Your task to perform on an android device: turn on javascript in the chrome app Image 0: 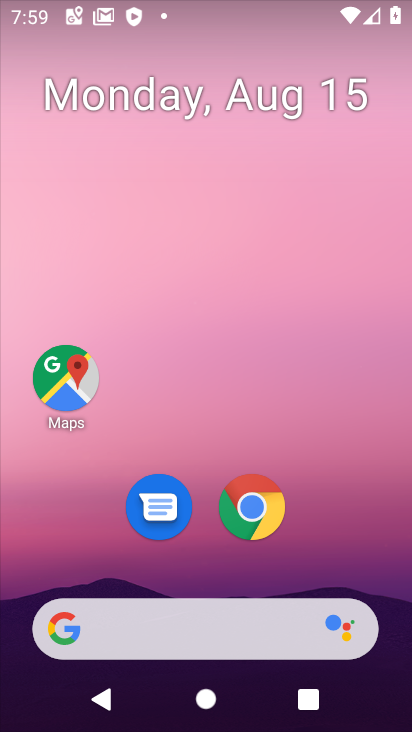
Step 0: click (273, 493)
Your task to perform on an android device: turn on javascript in the chrome app Image 1: 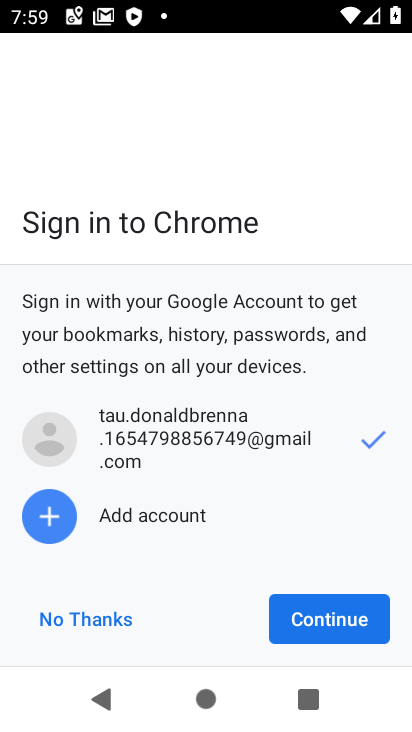
Step 1: click (306, 640)
Your task to perform on an android device: turn on javascript in the chrome app Image 2: 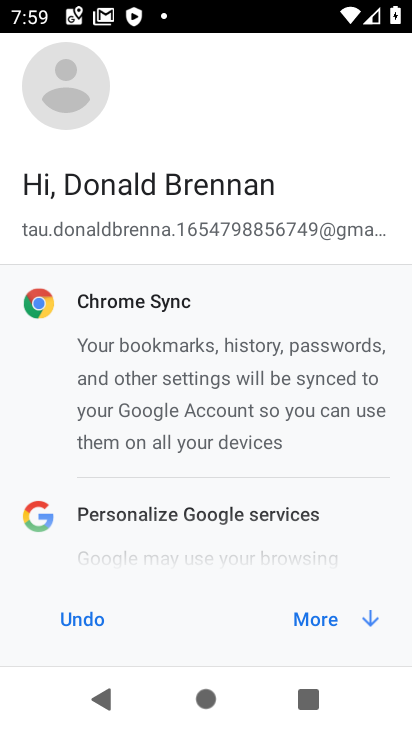
Step 2: click (327, 604)
Your task to perform on an android device: turn on javascript in the chrome app Image 3: 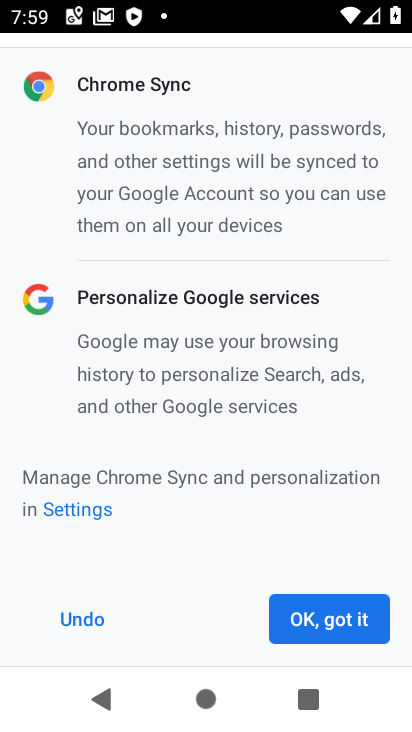
Step 3: click (308, 613)
Your task to perform on an android device: turn on javascript in the chrome app Image 4: 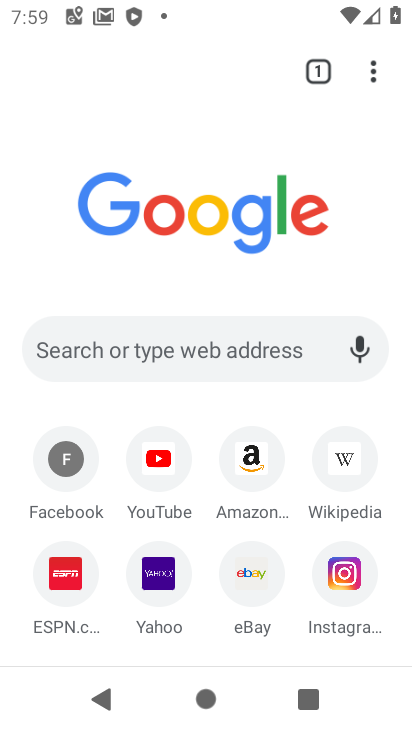
Step 4: click (373, 85)
Your task to perform on an android device: turn on javascript in the chrome app Image 5: 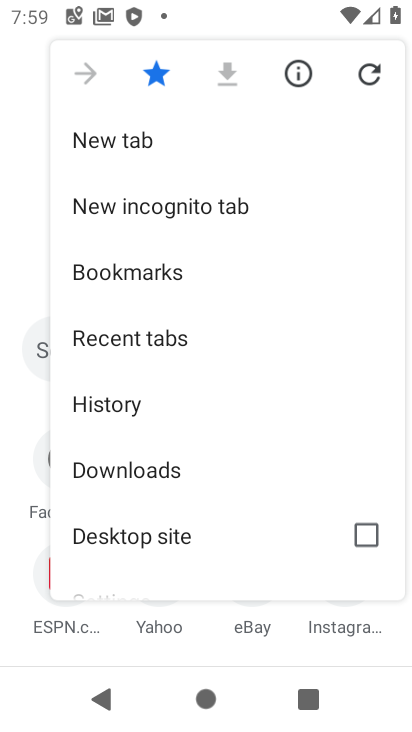
Step 5: drag from (233, 497) to (238, 185)
Your task to perform on an android device: turn on javascript in the chrome app Image 6: 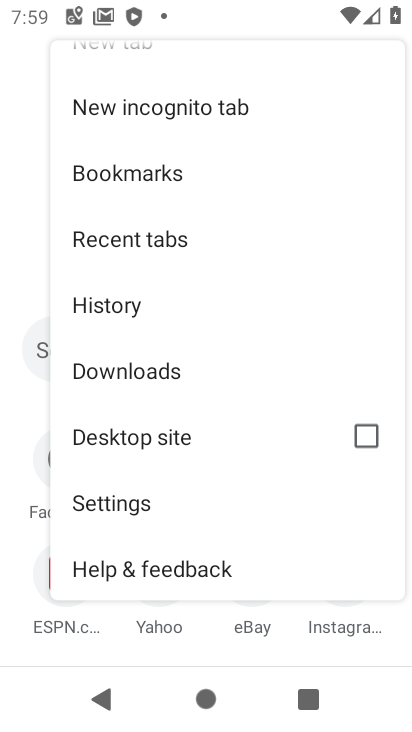
Step 6: click (209, 488)
Your task to perform on an android device: turn on javascript in the chrome app Image 7: 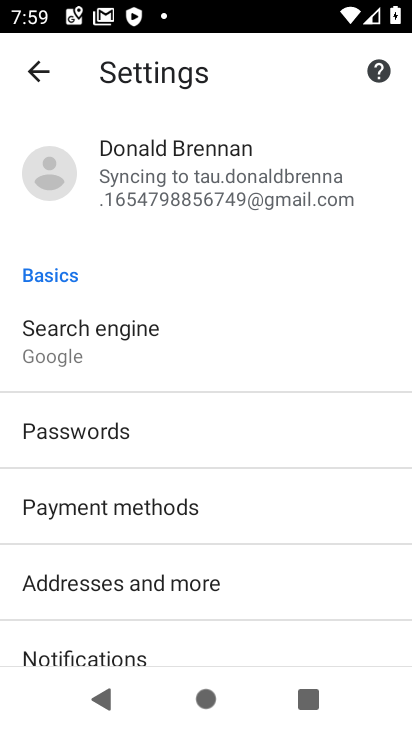
Step 7: drag from (209, 488) to (240, 40)
Your task to perform on an android device: turn on javascript in the chrome app Image 8: 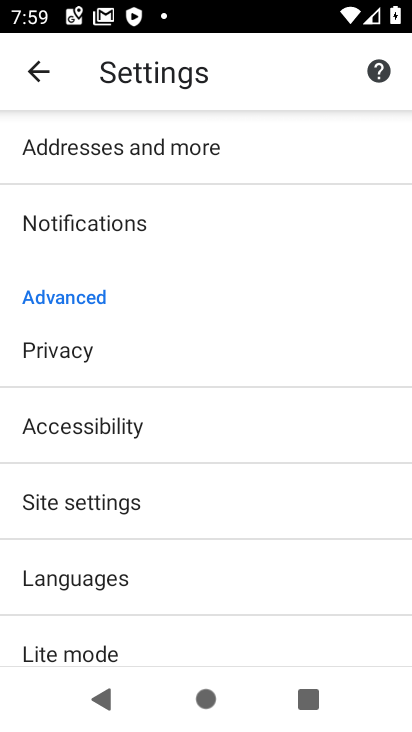
Step 8: click (182, 513)
Your task to perform on an android device: turn on javascript in the chrome app Image 9: 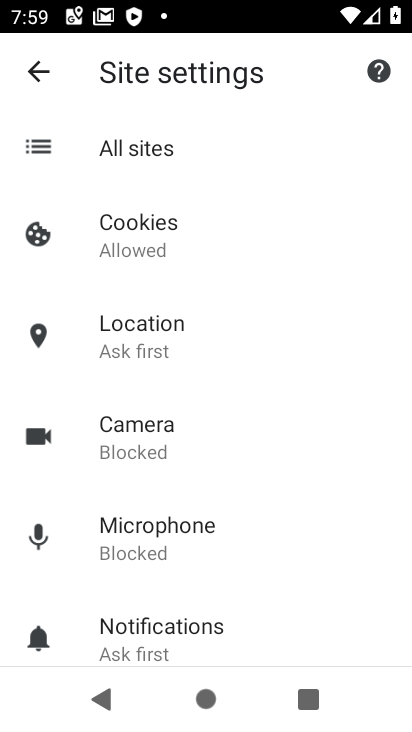
Step 9: drag from (189, 618) to (203, 284)
Your task to perform on an android device: turn on javascript in the chrome app Image 10: 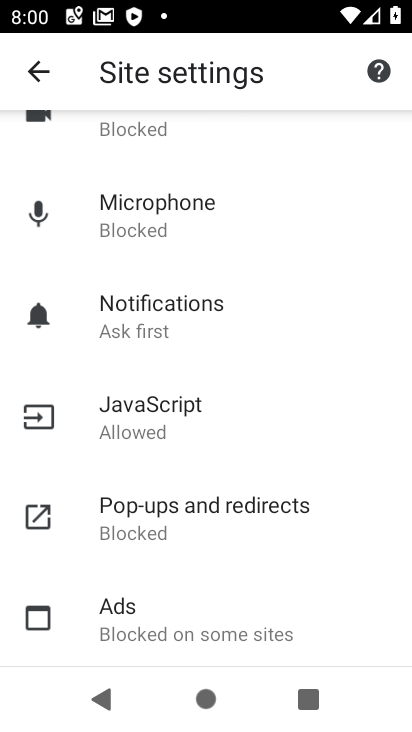
Step 10: click (205, 435)
Your task to perform on an android device: turn on javascript in the chrome app Image 11: 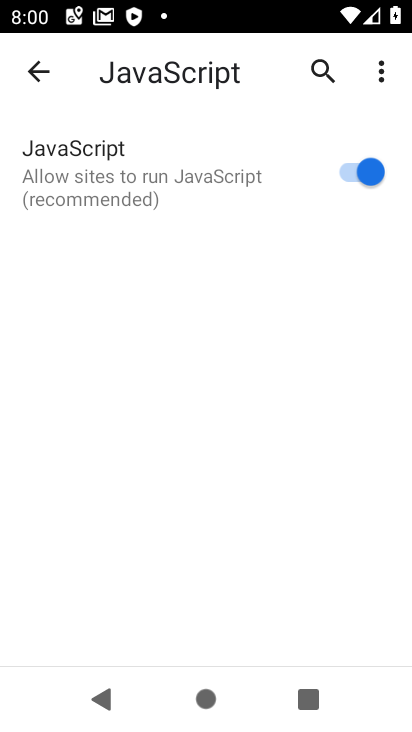
Step 11: click (335, 193)
Your task to perform on an android device: turn on javascript in the chrome app Image 12: 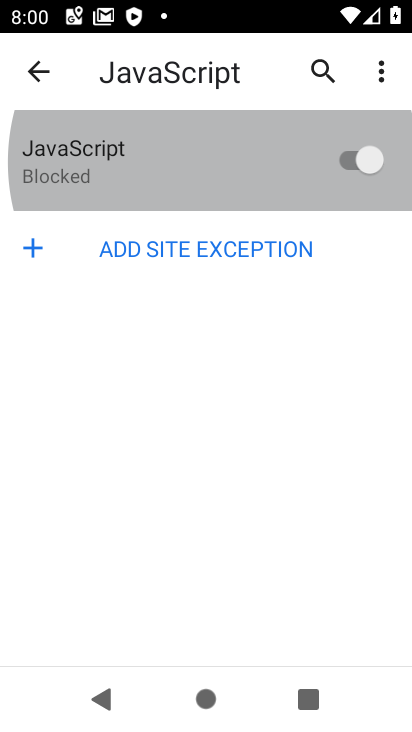
Step 12: click (335, 193)
Your task to perform on an android device: turn on javascript in the chrome app Image 13: 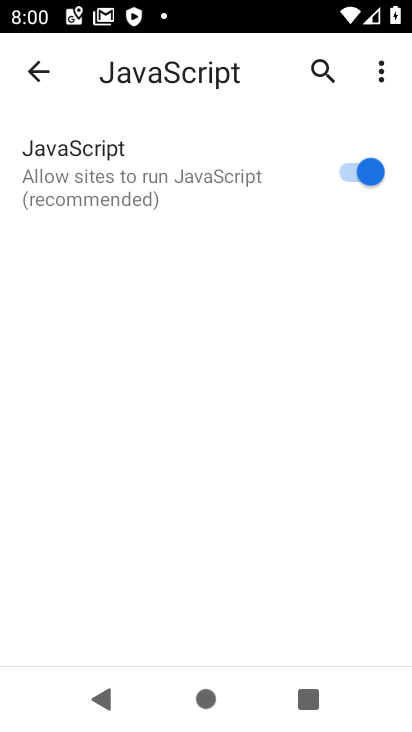
Step 13: task complete